Your task to perform on an android device: turn notification dots off Image 0: 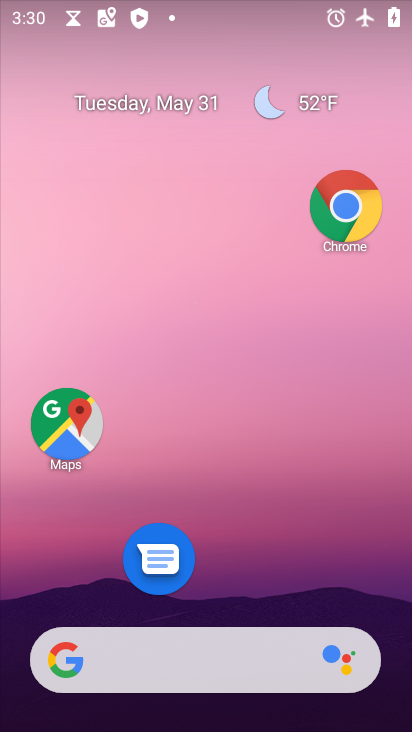
Step 0: drag from (62, 455) to (209, 188)
Your task to perform on an android device: turn notification dots off Image 1: 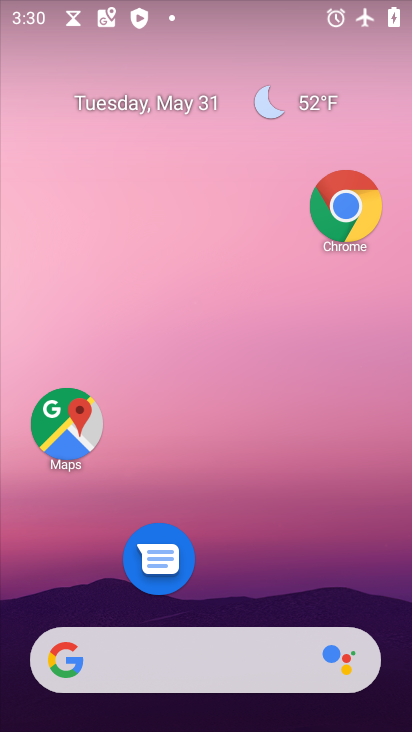
Step 1: drag from (77, 499) to (200, 206)
Your task to perform on an android device: turn notification dots off Image 2: 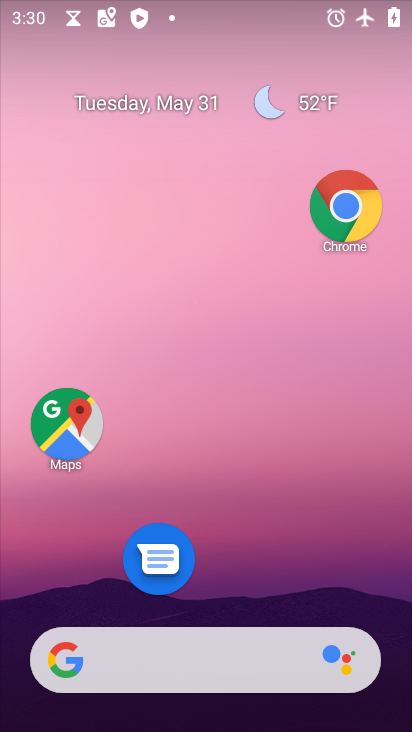
Step 2: drag from (30, 482) to (178, 128)
Your task to perform on an android device: turn notification dots off Image 3: 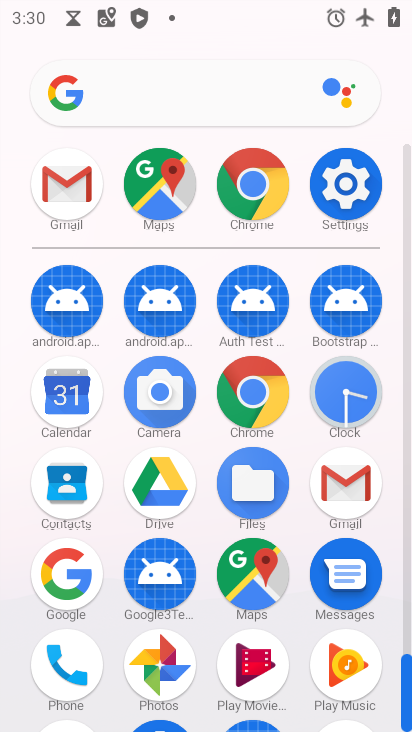
Step 3: click (358, 170)
Your task to perform on an android device: turn notification dots off Image 4: 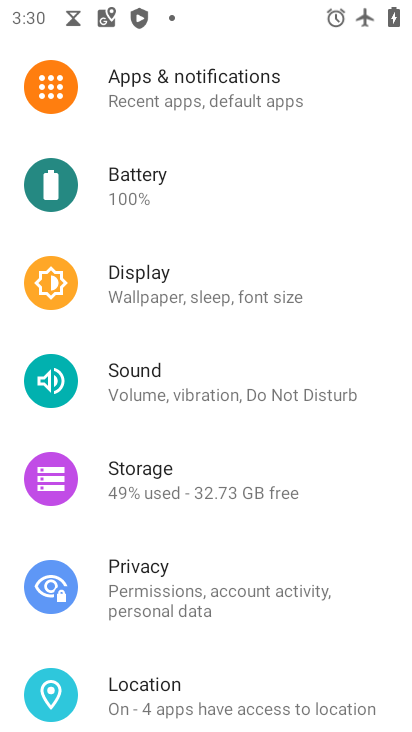
Step 4: click (230, 97)
Your task to perform on an android device: turn notification dots off Image 5: 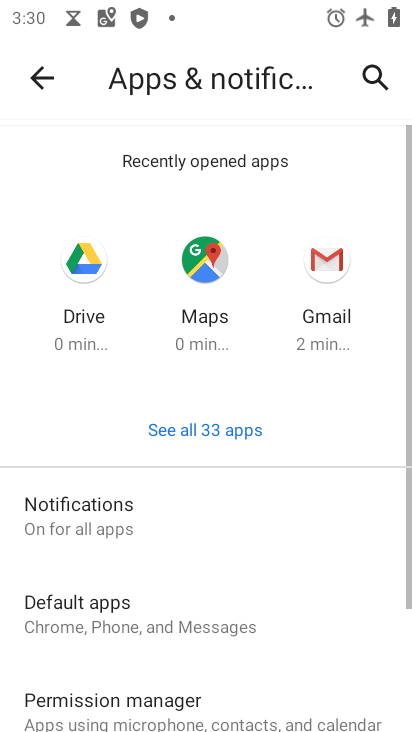
Step 5: click (92, 510)
Your task to perform on an android device: turn notification dots off Image 6: 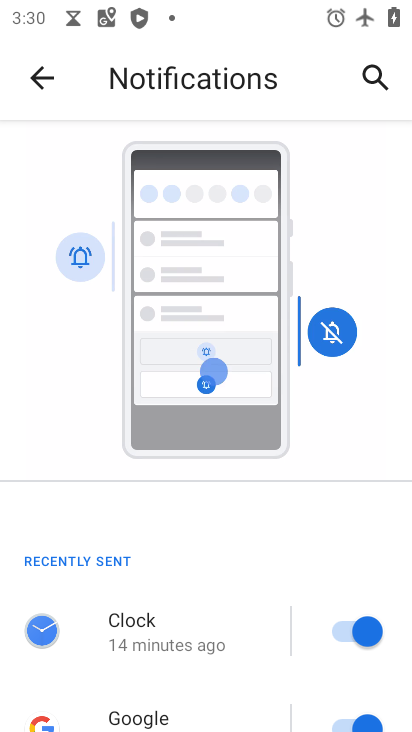
Step 6: drag from (6, 537) to (216, 186)
Your task to perform on an android device: turn notification dots off Image 7: 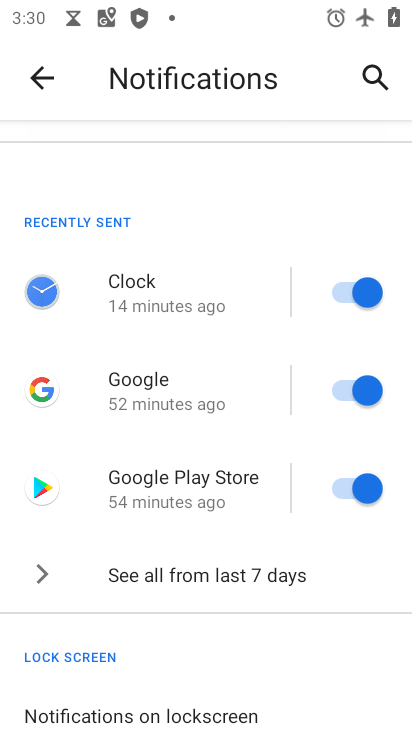
Step 7: drag from (10, 590) to (229, 211)
Your task to perform on an android device: turn notification dots off Image 8: 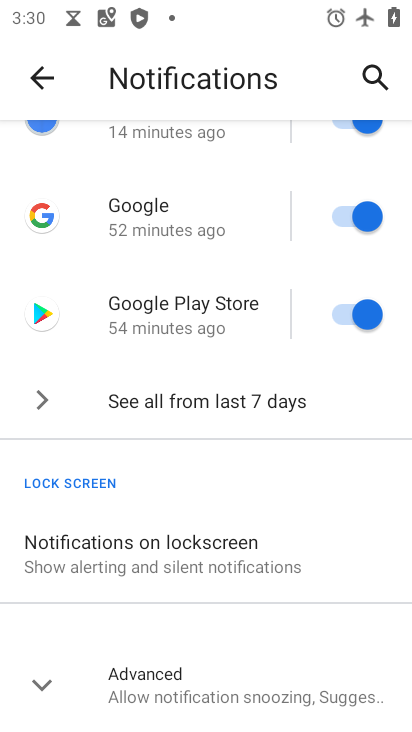
Step 8: click (238, 687)
Your task to perform on an android device: turn notification dots off Image 9: 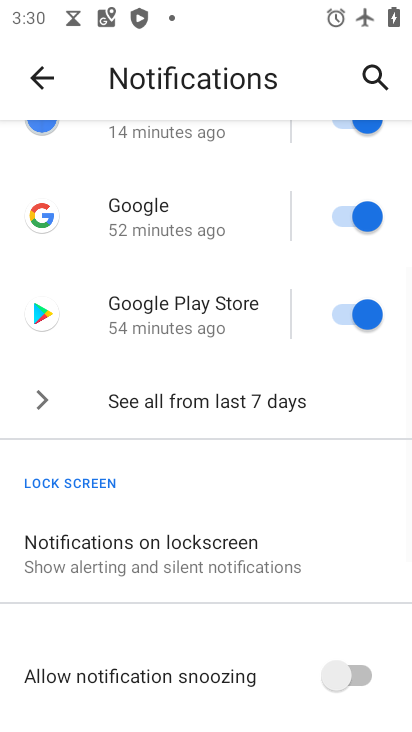
Step 9: task complete